Your task to perform on an android device: check battery use Image 0: 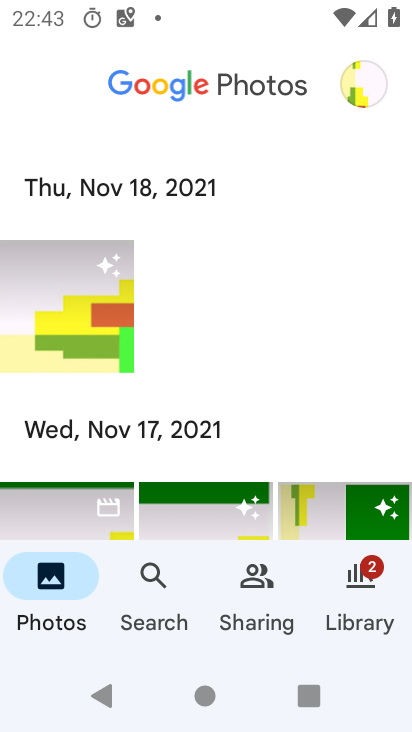
Step 0: press home button
Your task to perform on an android device: check battery use Image 1: 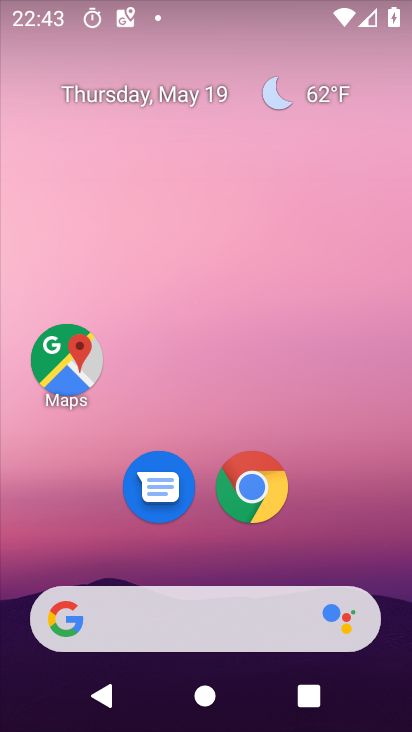
Step 1: drag from (320, 511) to (262, 48)
Your task to perform on an android device: check battery use Image 2: 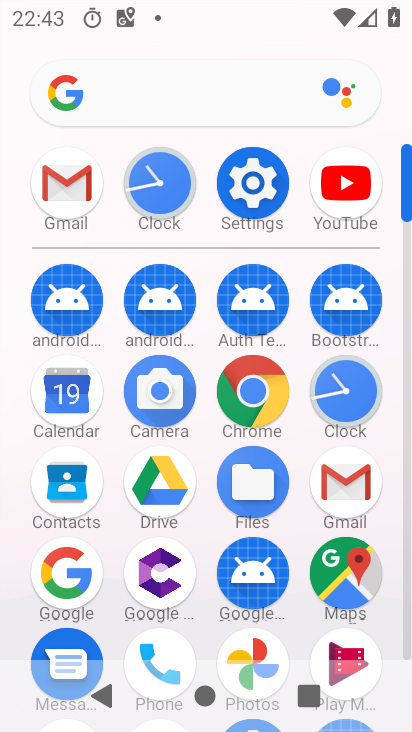
Step 2: click (258, 177)
Your task to perform on an android device: check battery use Image 3: 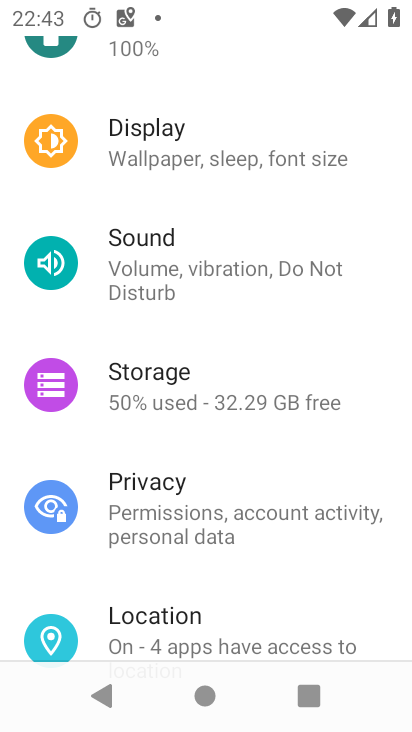
Step 3: drag from (267, 118) to (292, 456)
Your task to perform on an android device: check battery use Image 4: 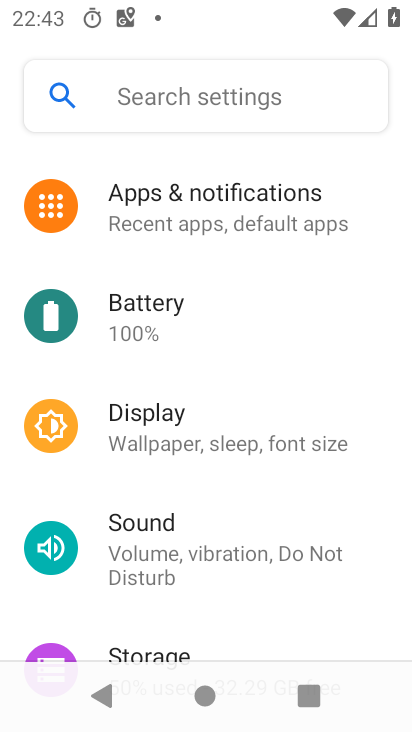
Step 4: click (164, 315)
Your task to perform on an android device: check battery use Image 5: 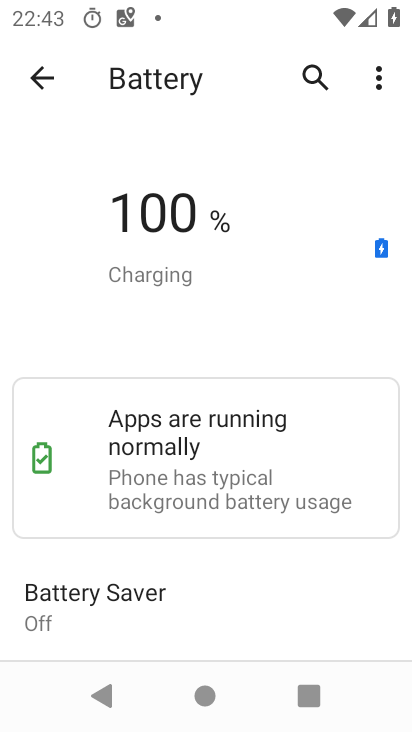
Step 5: click (383, 73)
Your task to perform on an android device: check battery use Image 6: 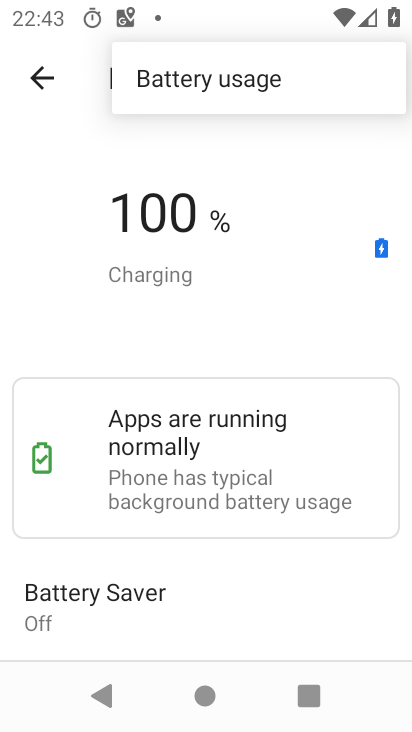
Step 6: click (301, 78)
Your task to perform on an android device: check battery use Image 7: 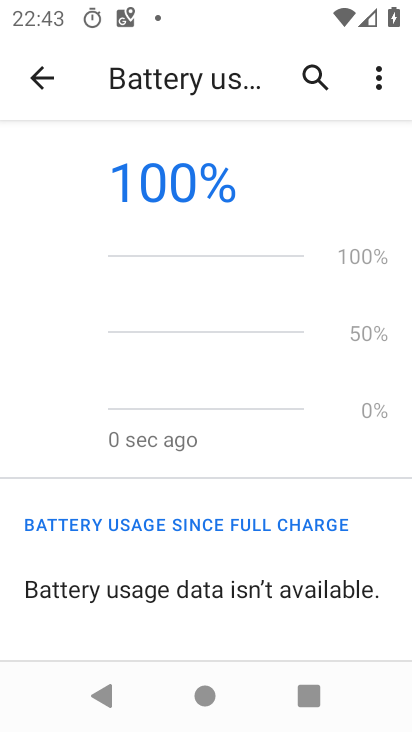
Step 7: task complete